Your task to perform on an android device: When is my next meeting? Image 0: 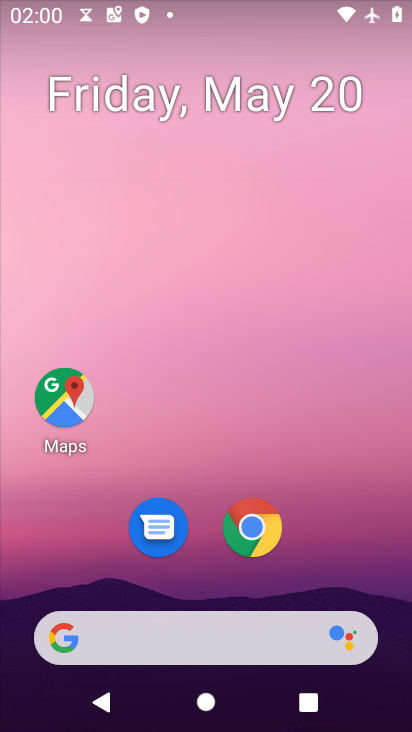
Step 0: press home button
Your task to perform on an android device: When is my next meeting? Image 1: 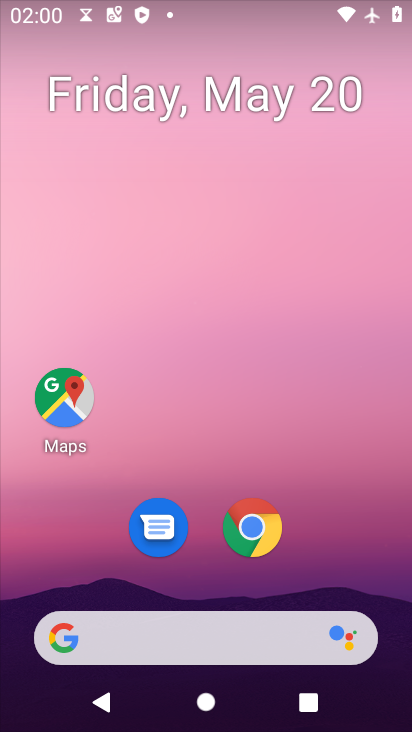
Step 1: drag from (165, 637) to (210, 299)
Your task to perform on an android device: When is my next meeting? Image 2: 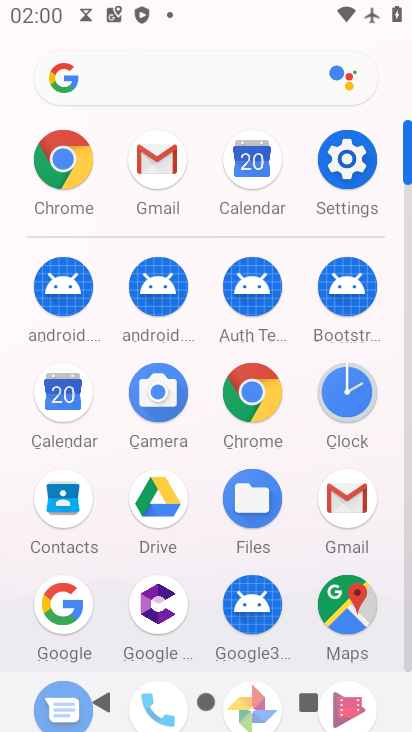
Step 2: click (246, 162)
Your task to perform on an android device: When is my next meeting? Image 3: 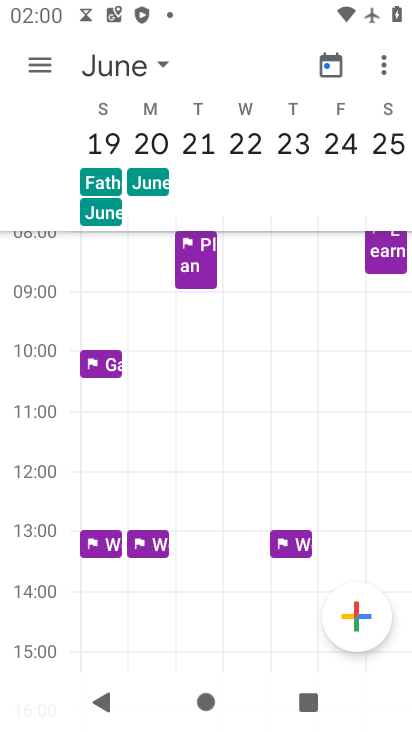
Step 3: click (110, 80)
Your task to perform on an android device: When is my next meeting? Image 4: 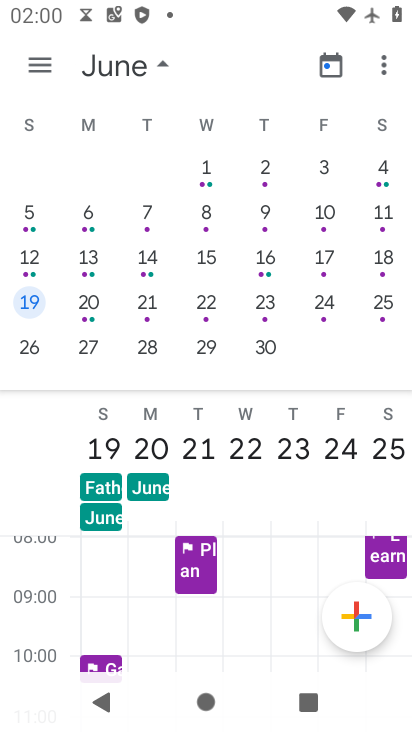
Step 4: drag from (109, 289) to (351, 264)
Your task to perform on an android device: When is my next meeting? Image 5: 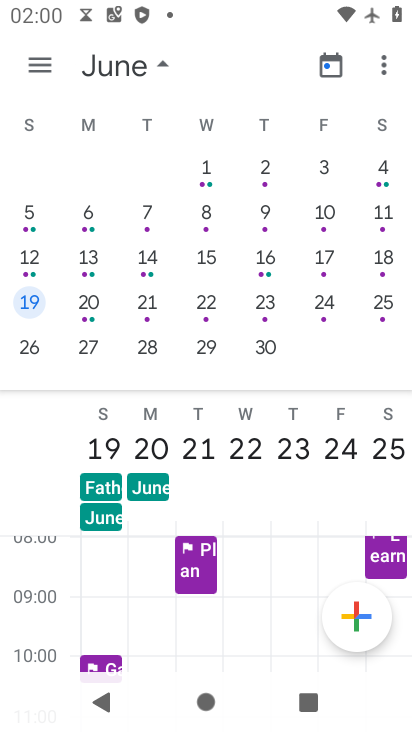
Step 5: drag from (144, 242) to (389, 385)
Your task to perform on an android device: When is my next meeting? Image 6: 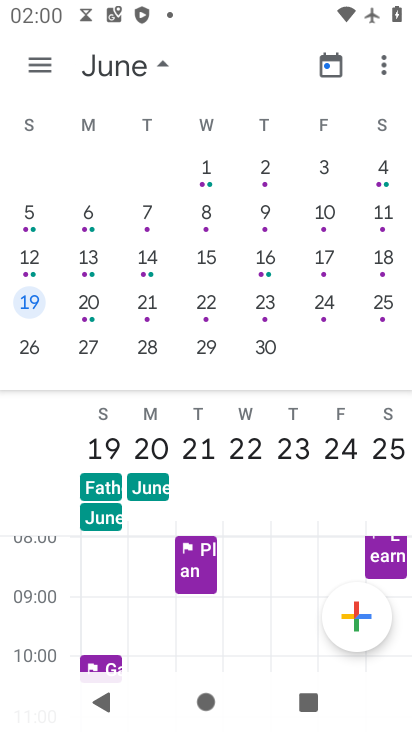
Step 6: drag from (93, 289) to (409, 299)
Your task to perform on an android device: When is my next meeting? Image 7: 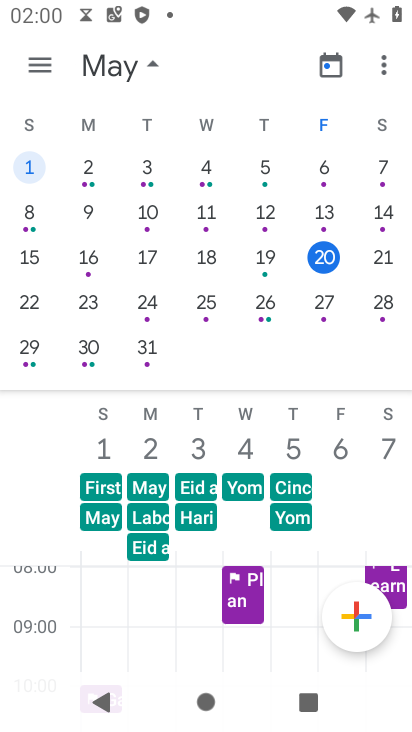
Step 7: click (317, 263)
Your task to perform on an android device: When is my next meeting? Image 8: 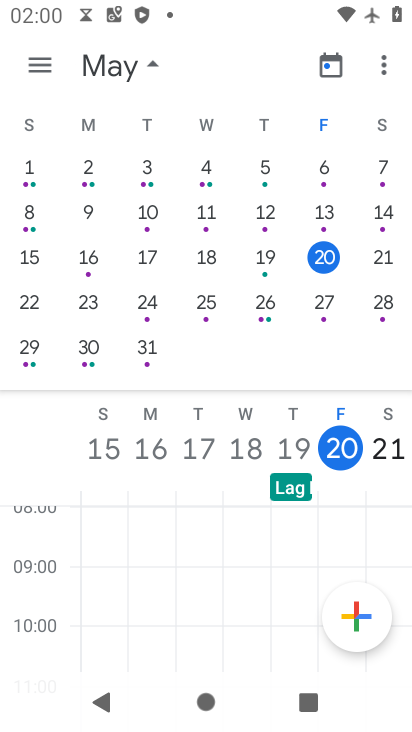
Step 8: click (48, 70)
Your task to perform on an android device: When is my next meeting? Image 9: 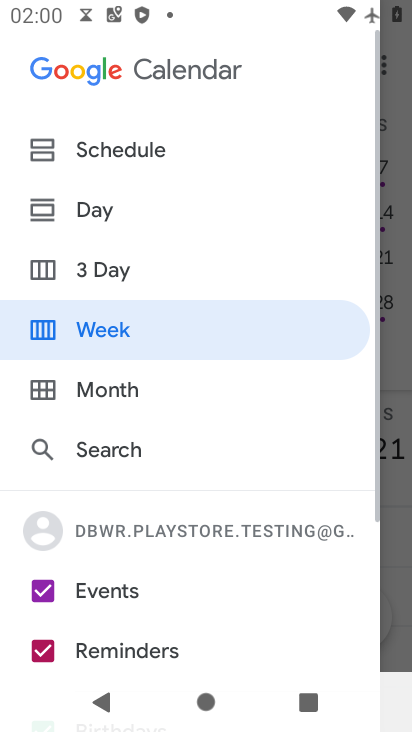
Step 9: click (96, 149)
Your task to perform on an android device: When is my next meeting? Image 10: 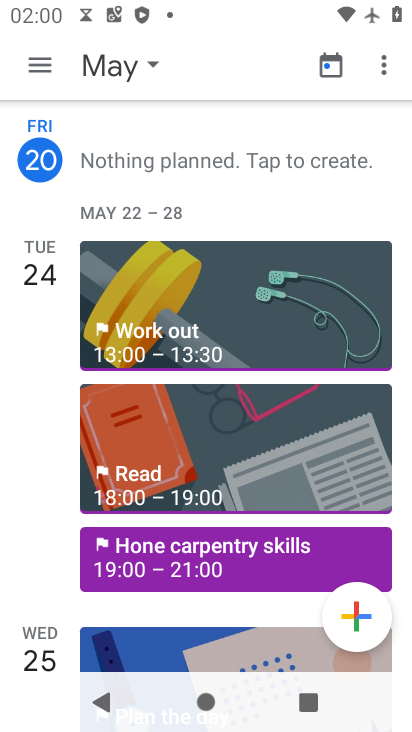
Step 10: drag from (179, 521) to (236, 373)
Your task to perform on an android device: When is my next meeting? Image 11: 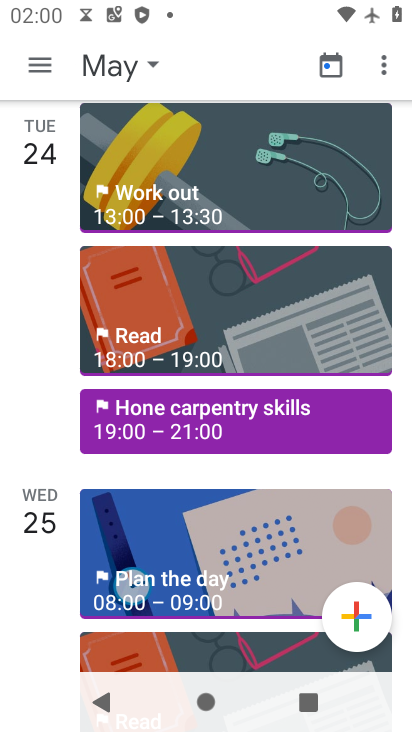
Step 11: click (218, 430)
Your task to perform on an android device: When is my next meeting? Image 12: 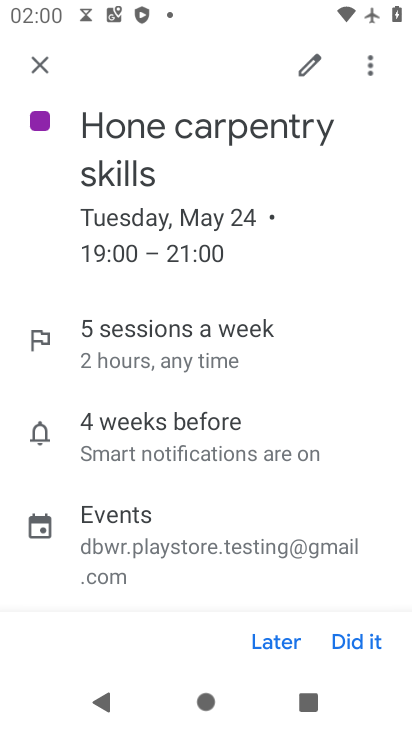
Step 12: task complete